Your task to perform on an android device: see tabs open on other devices in the chrome app Image 0: 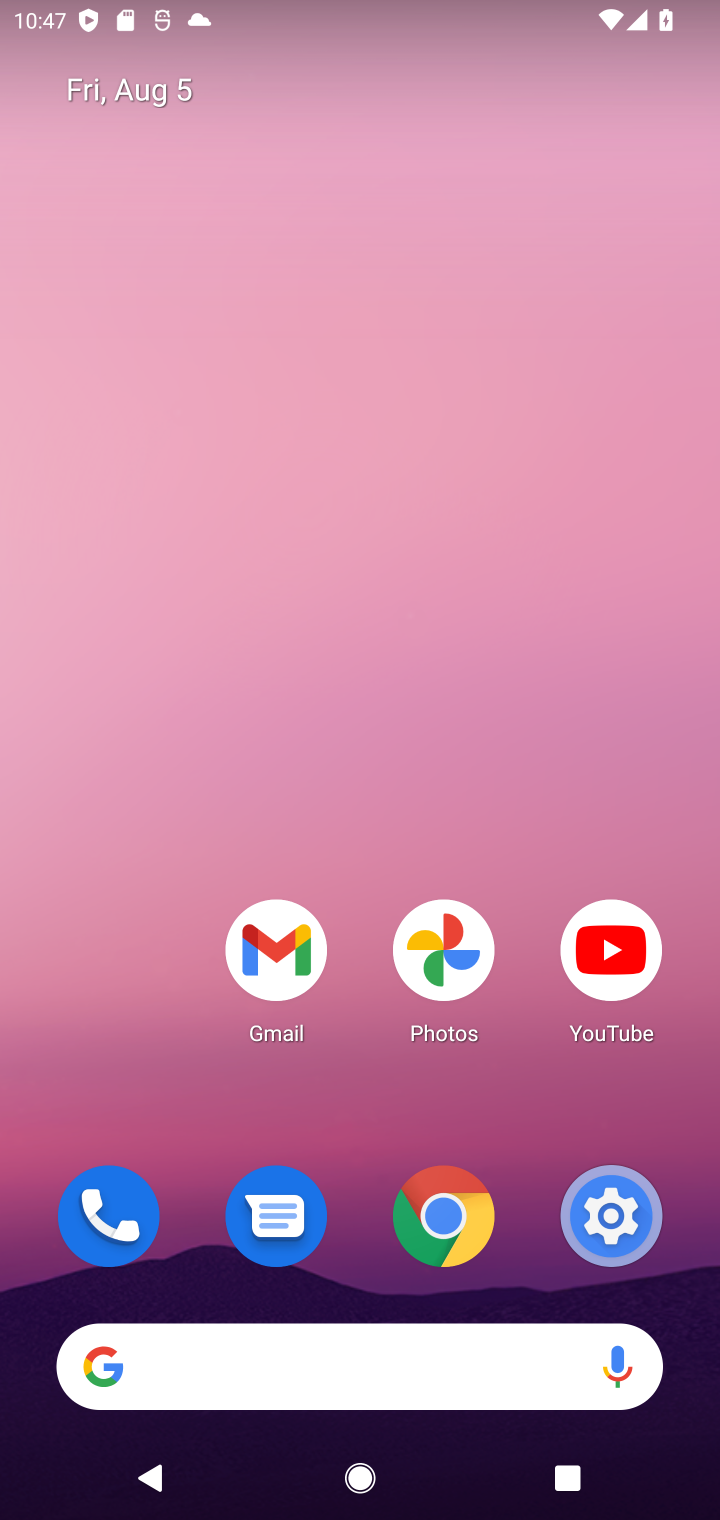
Step 0: drag from (264, 1341) to (411, 5)
Your task to perform on an android device: see tabs open on other devices in the chrome app Image 1: 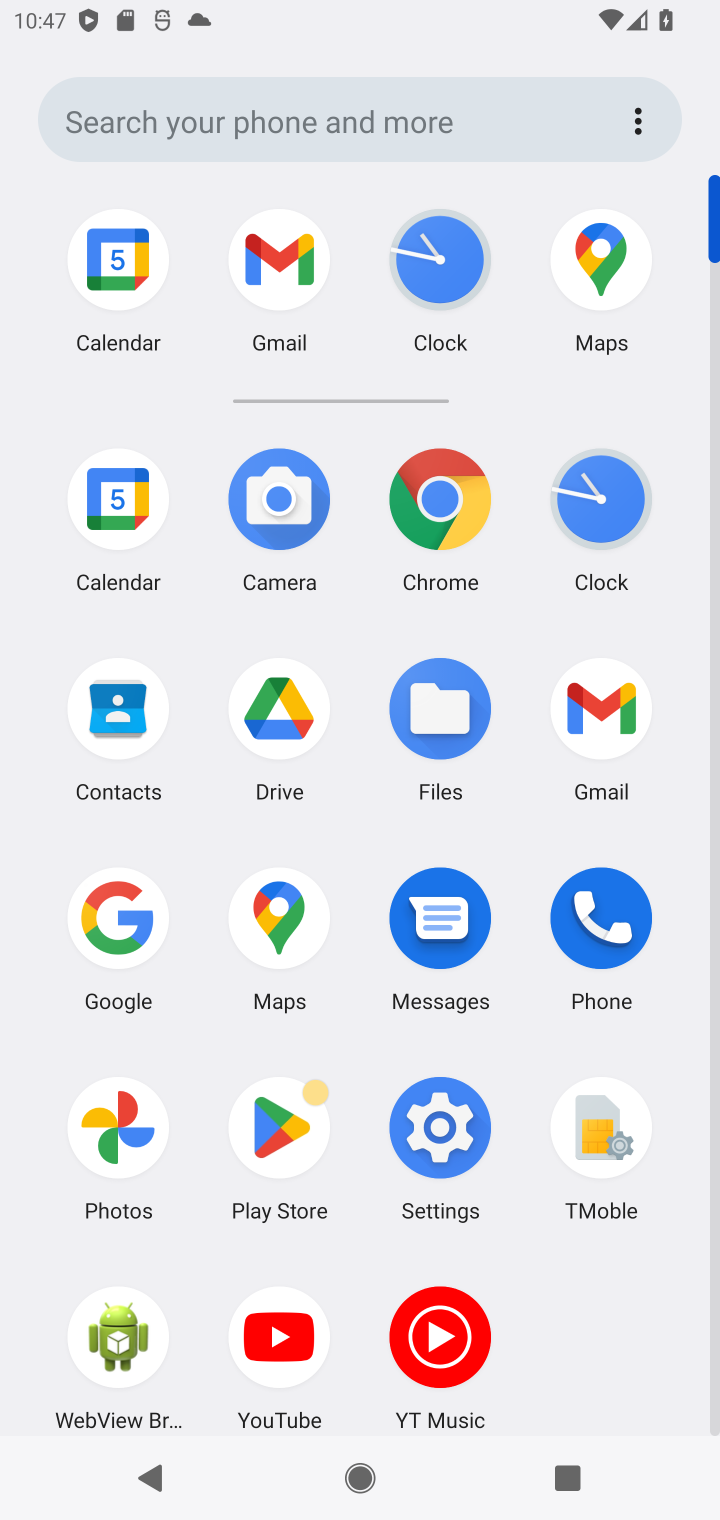
Step 1: click (447, 486)
Your task to perform on an android device: see tabs open on other devices in the chrome app Image 2: 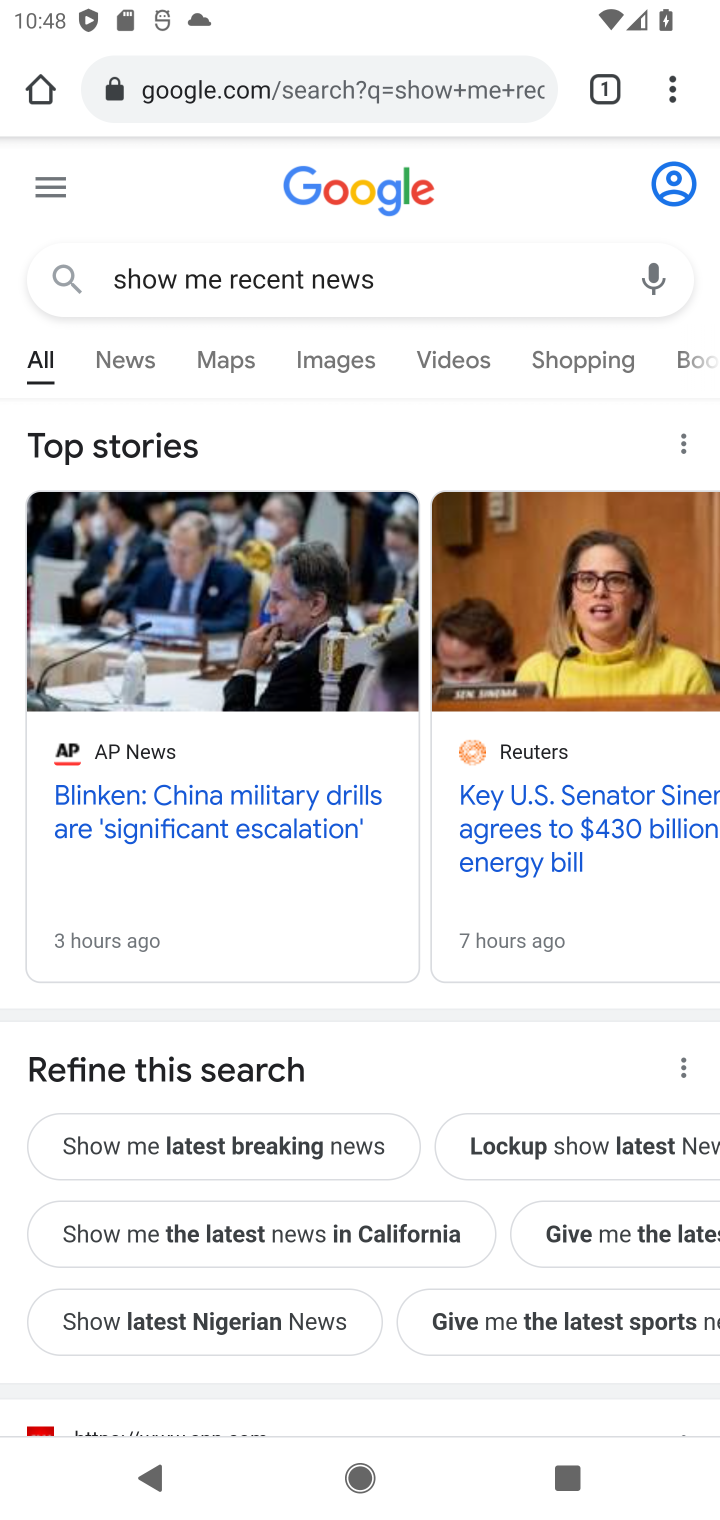
Step 2: click (663, 84)
Your task to perform on an android device: see tabs open on other devices in the chrome app Image 3: 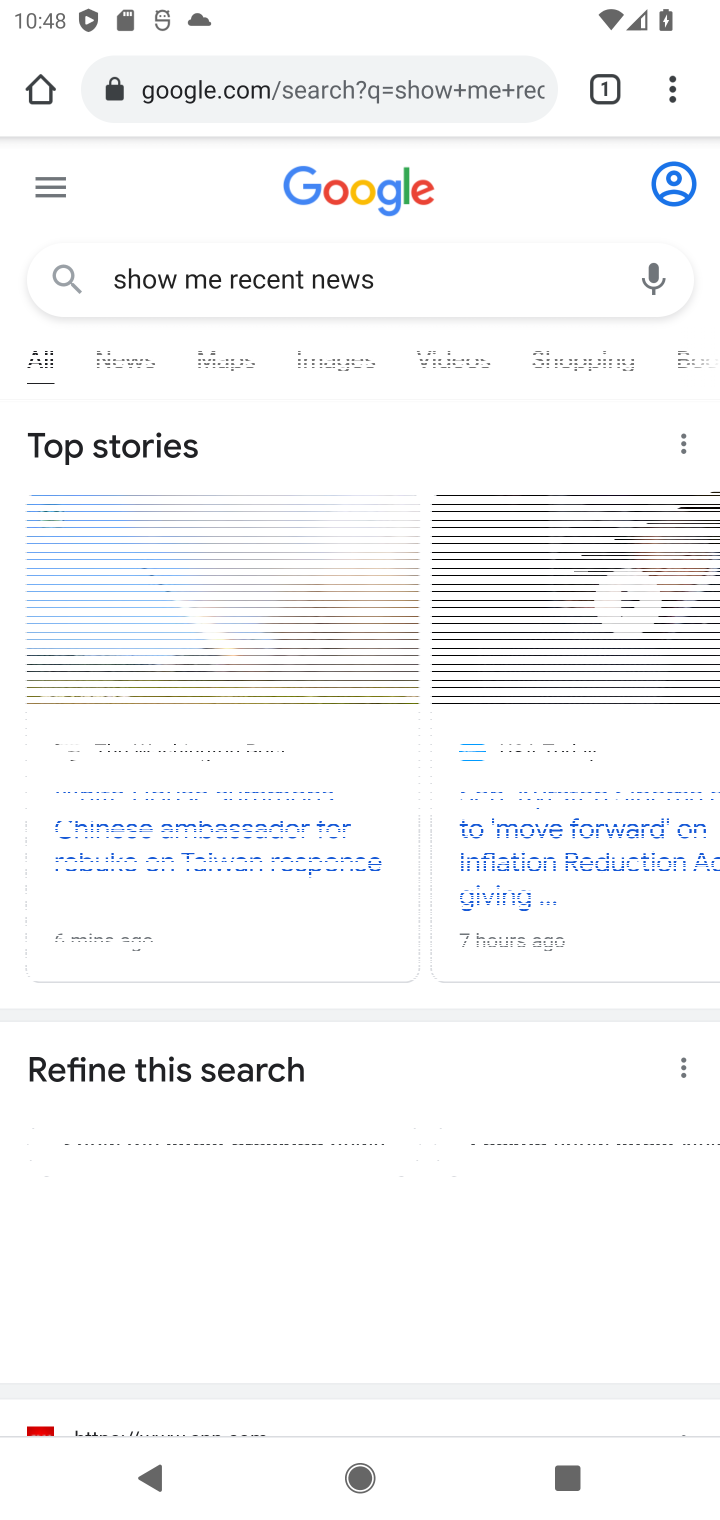
Step 3: drag from (663, 93) to (406, 705)
Your task to perform on an android device: see tabs open on other devices in the chrome app Image 4: 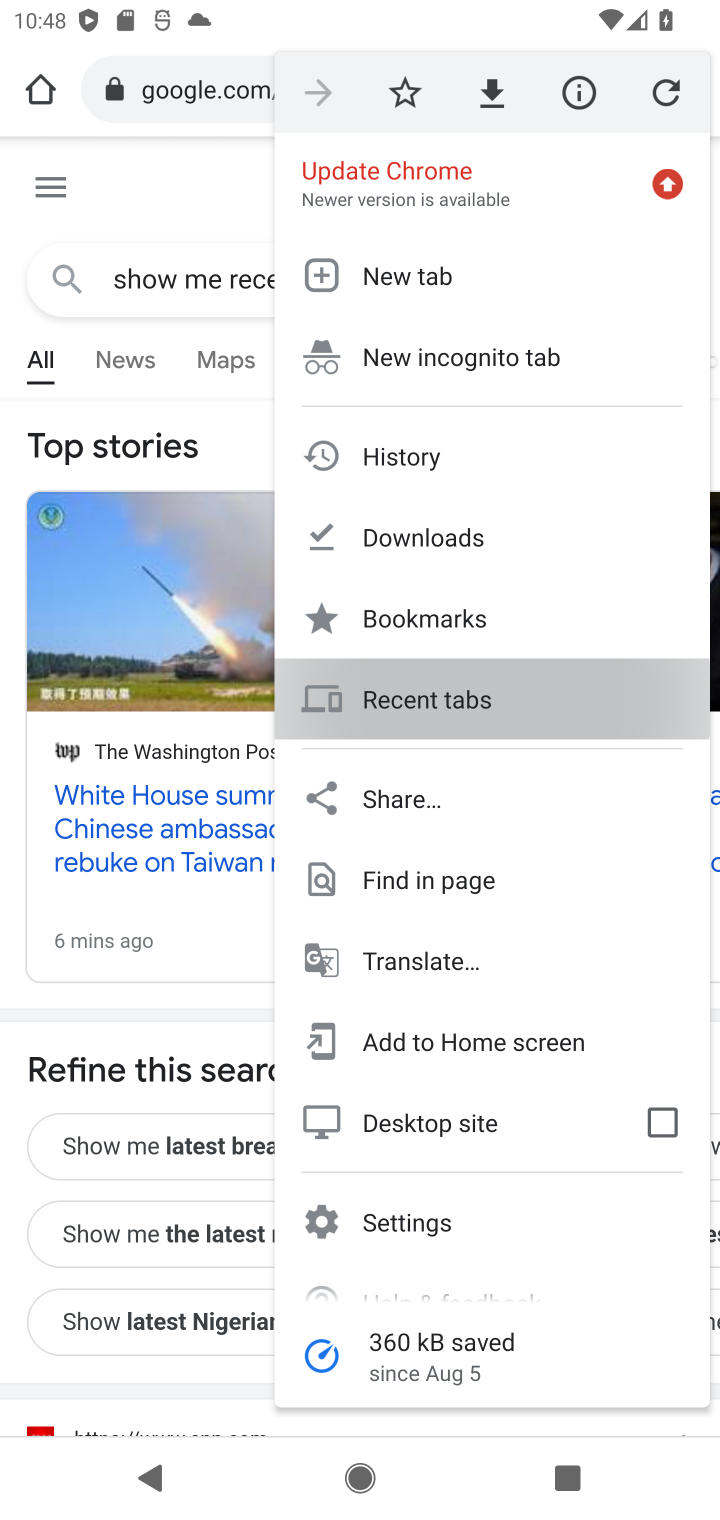
Step 4: click (406, 705)
Your task to perform on an android device: see tabs open on other devices in the chrome app Image 5: 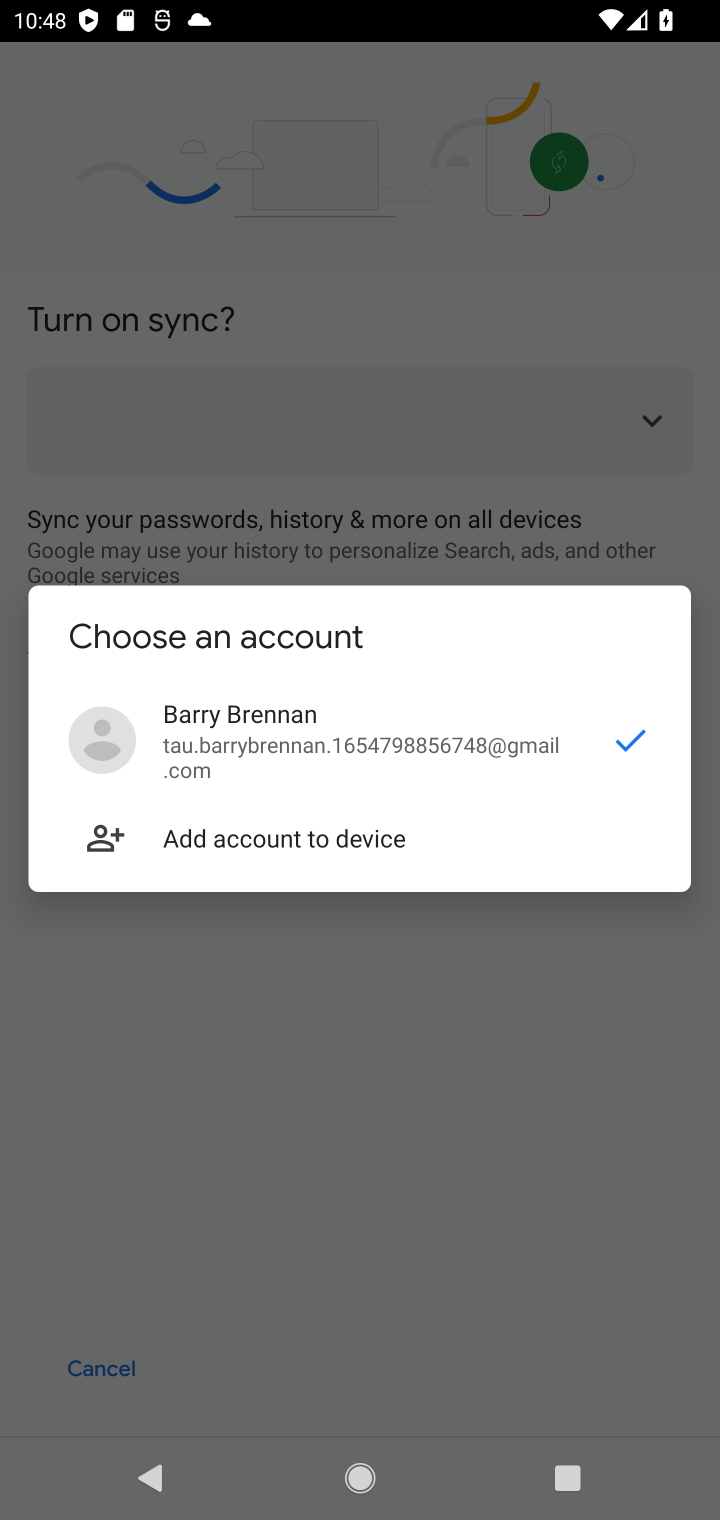
Step 5: task complete